Your task to perform on an android device: Open calendar and show me the second week of next month Image 0: 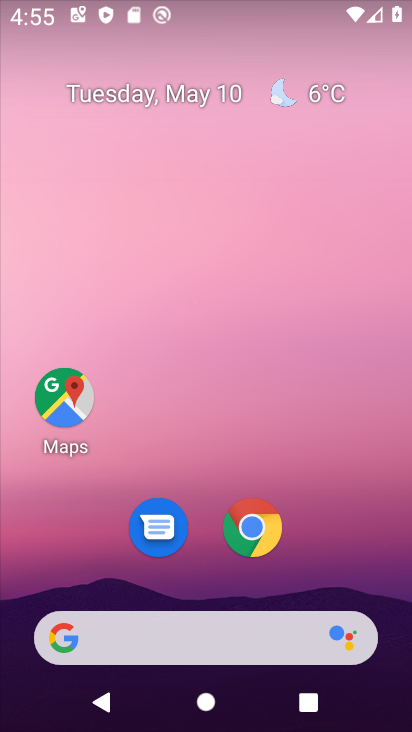
Step 0: drag from (308, 585) to (257, 102)
Your task to perform on an android device: Open calendar and show me the second week of next month Image 1: 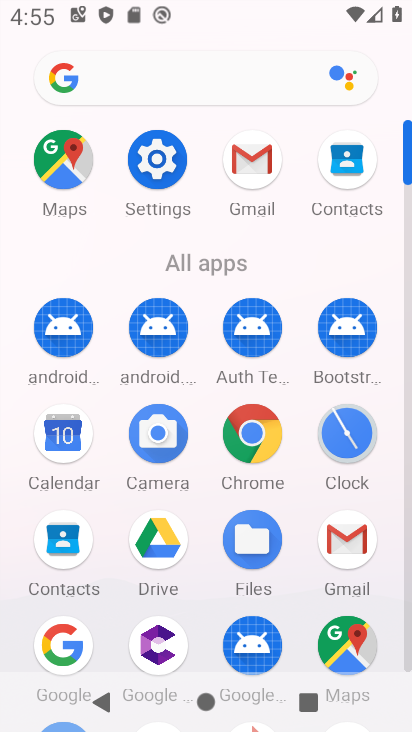
Step 1: click (72, 438)
Your task to perform on an android device: Open calendar and show me the second week of next month Image 2: 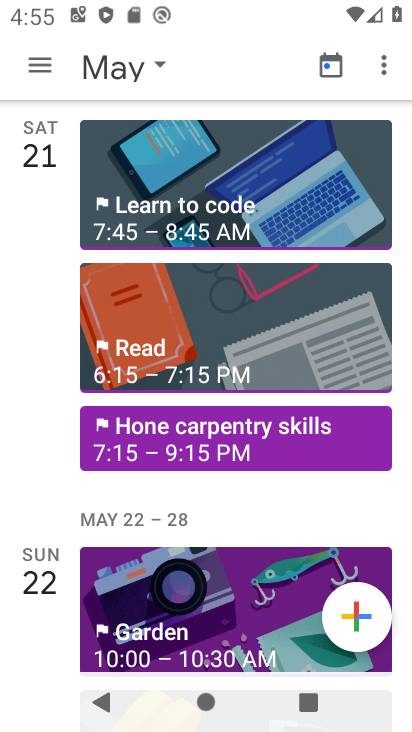
Step 2: click (167, 79)
Your task to perform on an android device: Open calendar and show me the second week of next month Image 3: 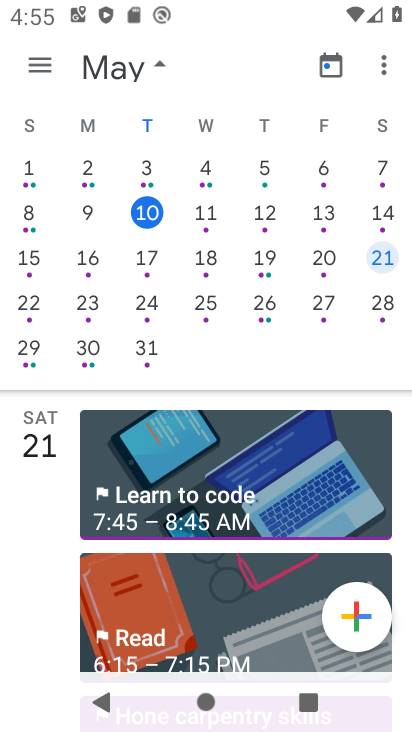
Step 3: drag from (363, 255) to (18, 267)
Your task to perform on an android device: Open calendar and show me the second week of next month Image 4: 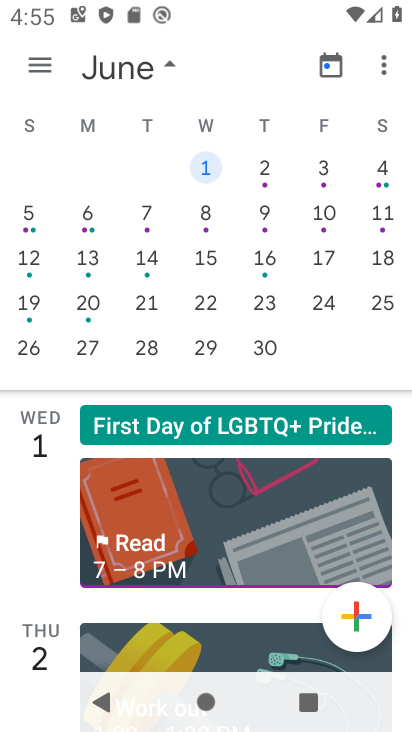
Step 4: click (48, 219)
Your task to perform on an android device: Open calendar and show me the second week of next month Image 5: 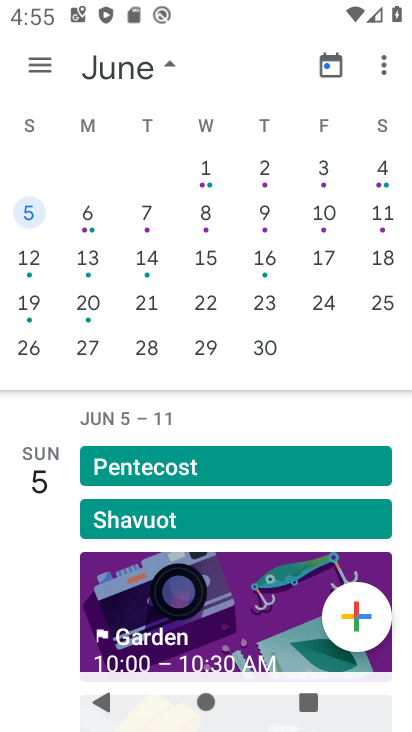
Step 5: task complete